Your task to perform on an android device: Open battery settings Image 0: 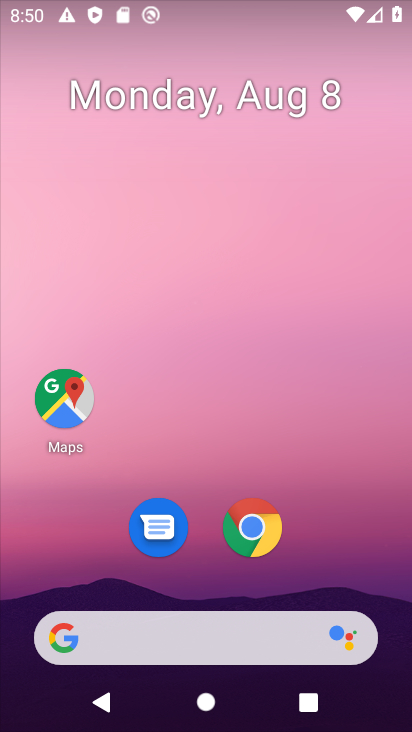
Step 0: click (259, 196)
Your task to perform on an android device: Open battery settings Image 1: 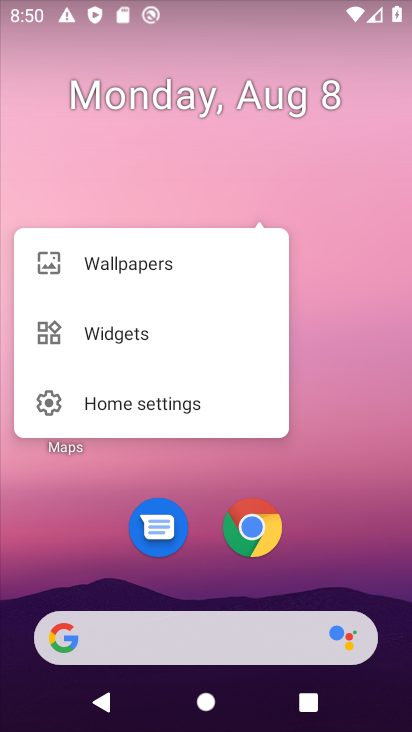
Step 1: click (327, 434)
Your task to perform on an android device: Open battery settings Image 2: 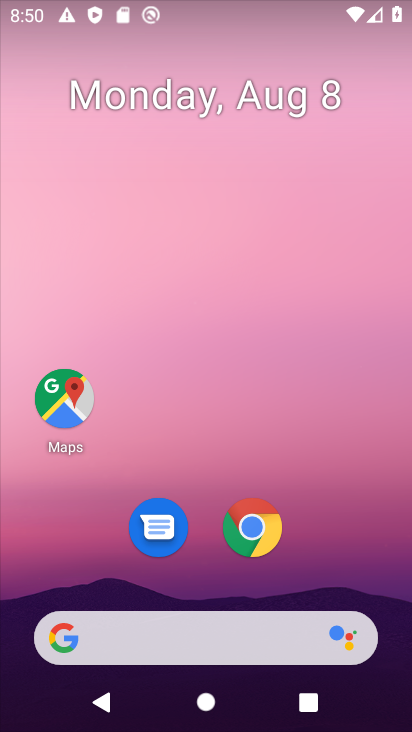
Step 2: drag from (239, 464) to (285, 40)
Your task to perform on an android device: Open battery settings Image 3: 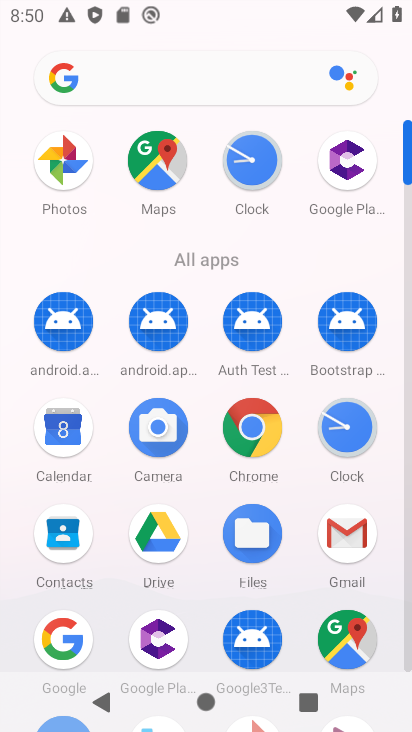
Step 3: drag from (211, 602) to (230, 116)
Your task to perform on an android device: Open battery settings Image 4: 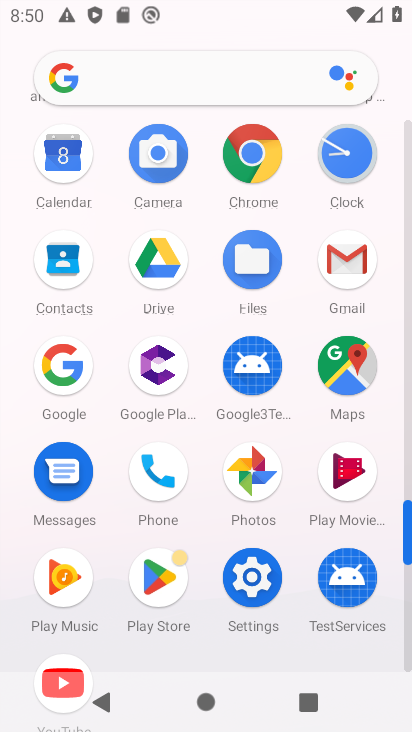
Step 4: drag from (254, 582) to (398, 584)
Your task to perform on an android device: Open battery settings Image 5: 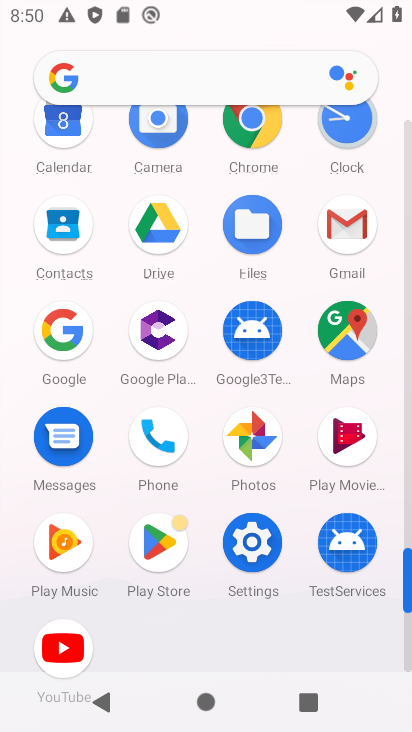
Step 5: drag from (255, 531) to (329, 578)
Your task to perform on an android device: Open battery settings Image 6: 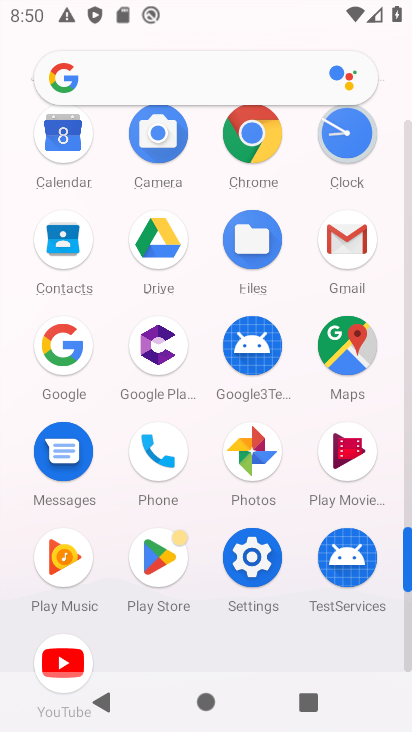
Step 6: drag from (240, 552) to (194, 397)
Your task to perform on an android device: Open battery settings Image 7: 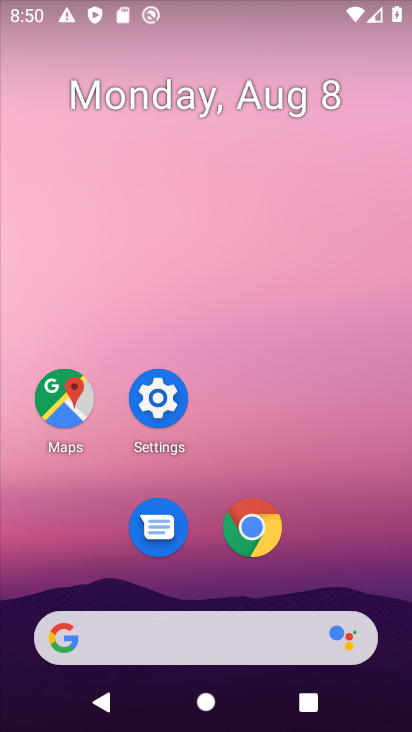
Step 7: click (156, 403)
Your task to perform on an android device: Open battery settings Image 8: 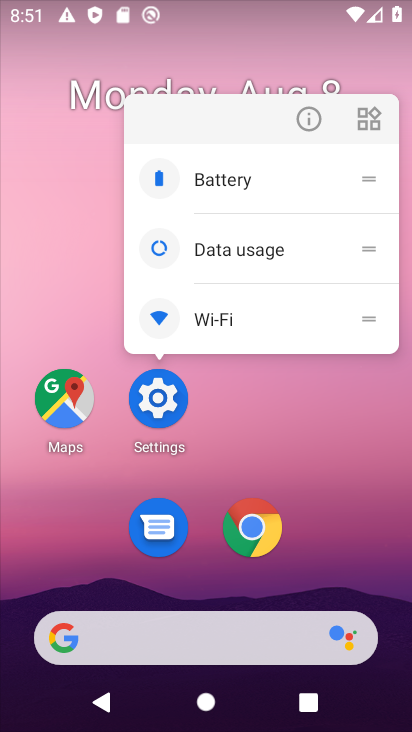
Step 8: click (157, 397)
Your task to perform on an android device: Open battery settings Image 9: 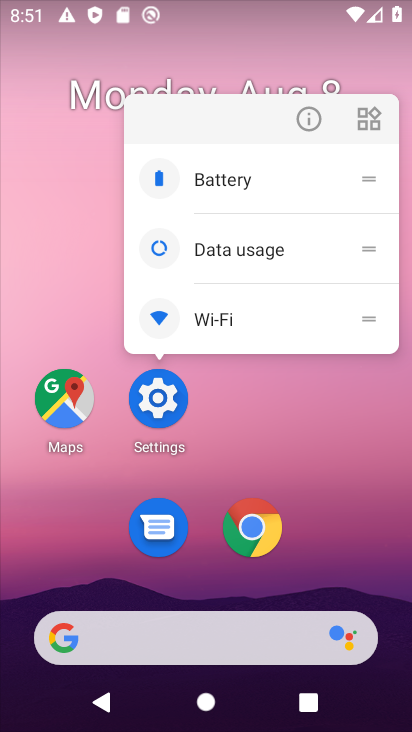
Step 9: click (157, 397)
Your task to perform on an android device: Open battery settings Image 10: 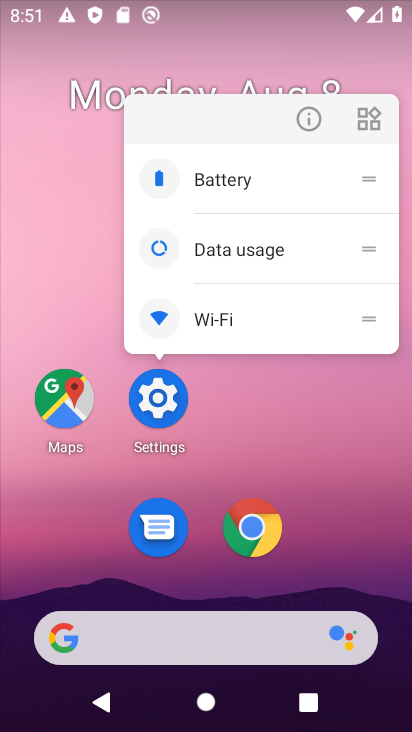
Step 10: click (157, 397)
Your task to perform on an android device: Open battery settings Image 11: 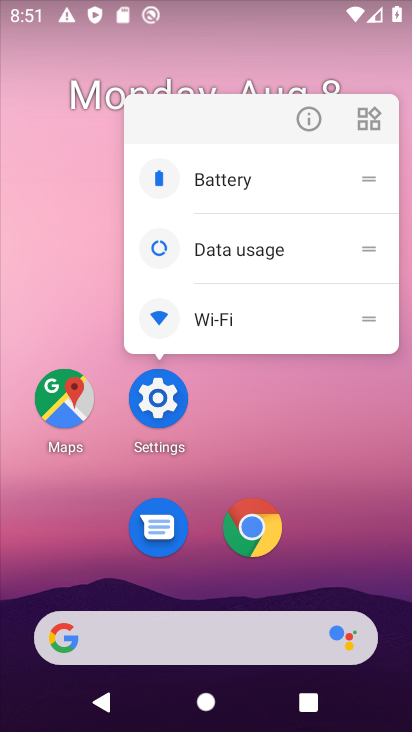
Step 11: click (164, 389)
Your task to perform on an android device: Open battery settings Image 12: 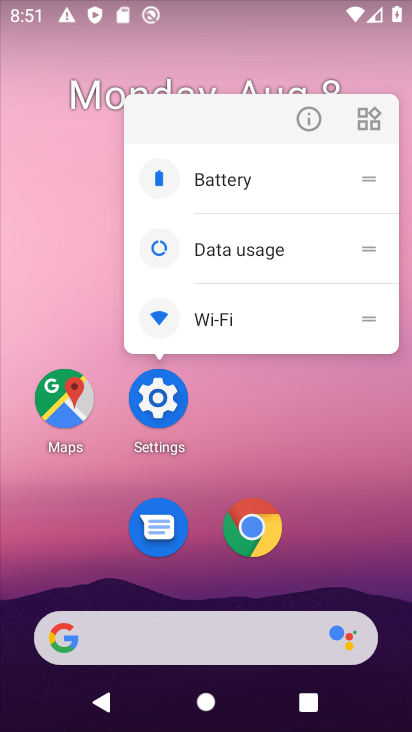
Step 12: click (164, 389)
Your task to perform on an android device: Open battery settings Image 13: 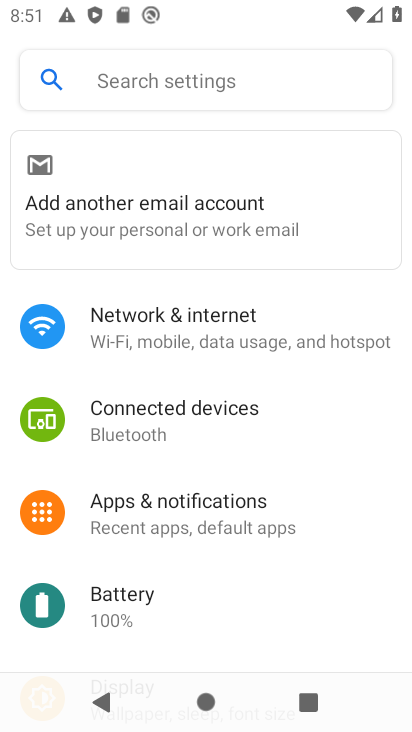
Step 13: drag from (151, 522) to (163, 160)
Your task to perform on an android device: Open battery settings Image 14: 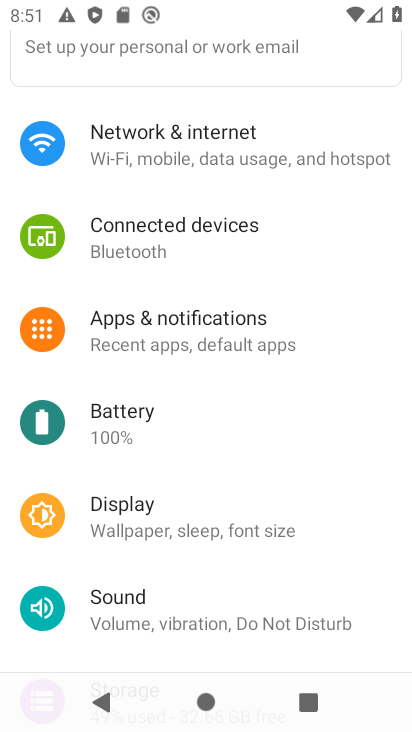
Step 14: click (125, 420)
Your task to perform on an android device: Open battery settings Image 15: 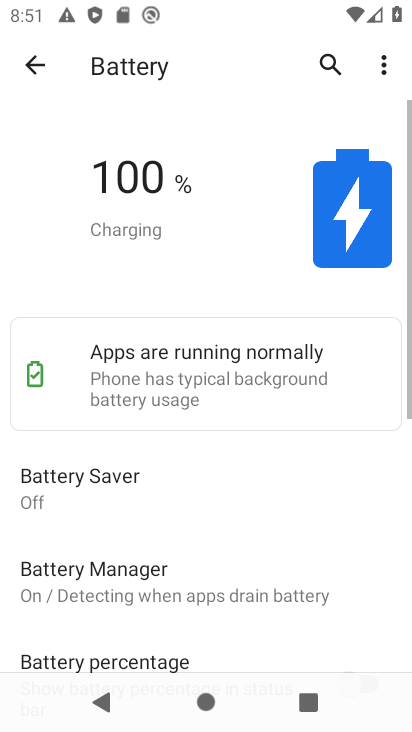
Step 15: task complete